Your task to perform on an android device: allow notifications from all sites in the chrome app Image 0: 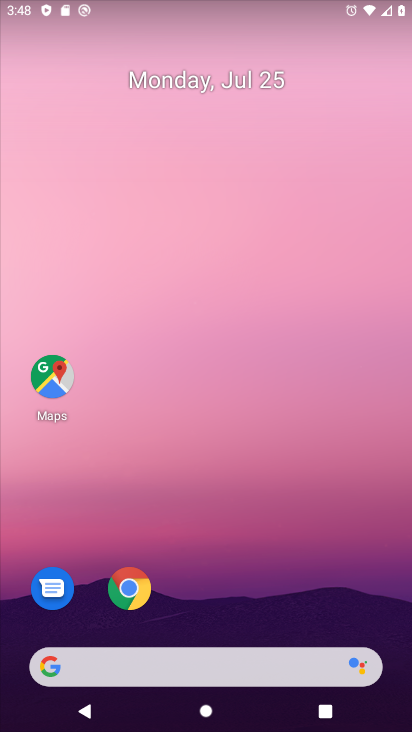
Step 0: drag from (235, 724) to (234, 57)
Your task to perform on an android device: allow notifications from all sites in the chrome app Image 1: 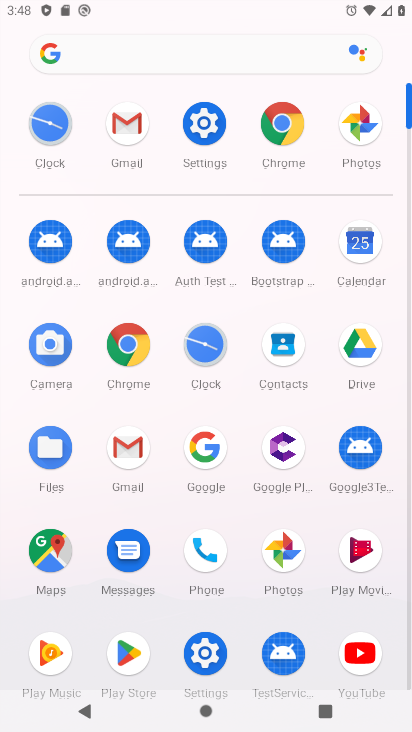
Step 1: click (129, 340)
Your task to perform on an android device: allow notifications from all sites in the chrome app Image 2: 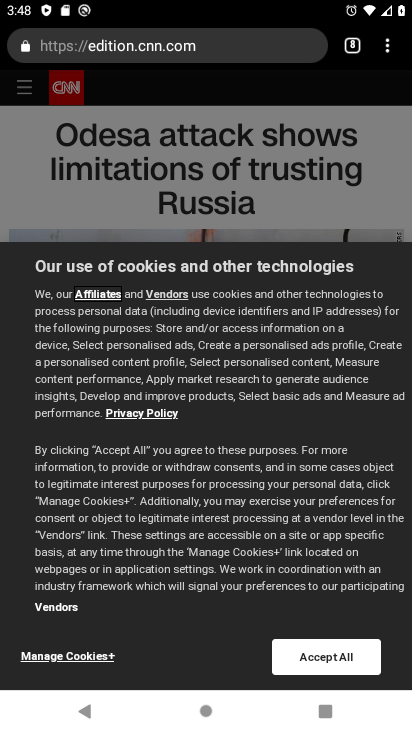
Step 2: click (387, 56)
Your task to perform on an android device: allow notifications from all sites in the chrome app Image 3: 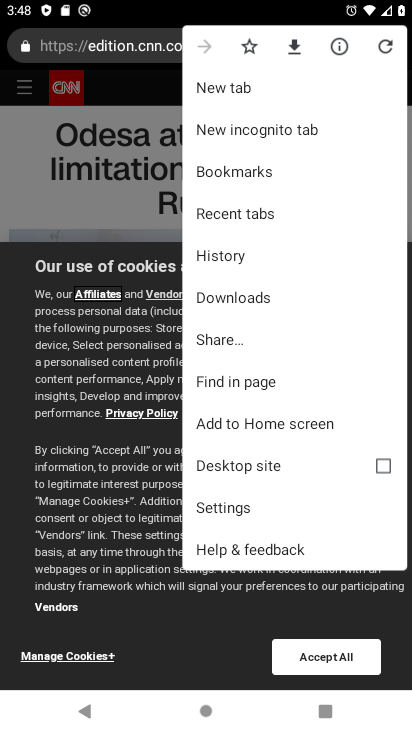
Step 3: click (220, 506)
Your task to perform on an android device: allow notifications from all sites in the chrome app Image 4: 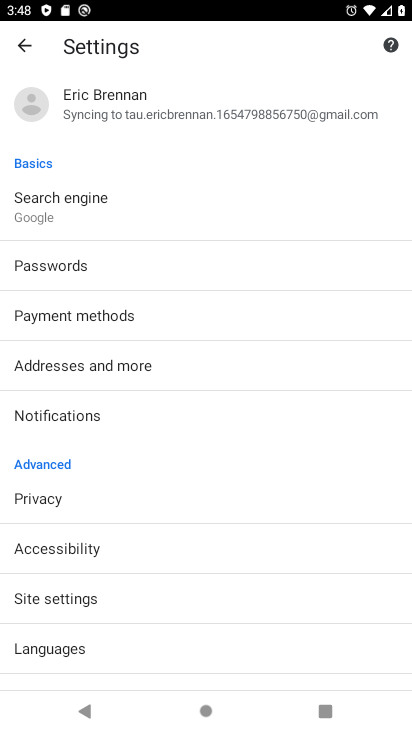
Step 4: click (59, 599)
Your task to perform on an android device: allow notifications from all sites in the chrome app Image 5: 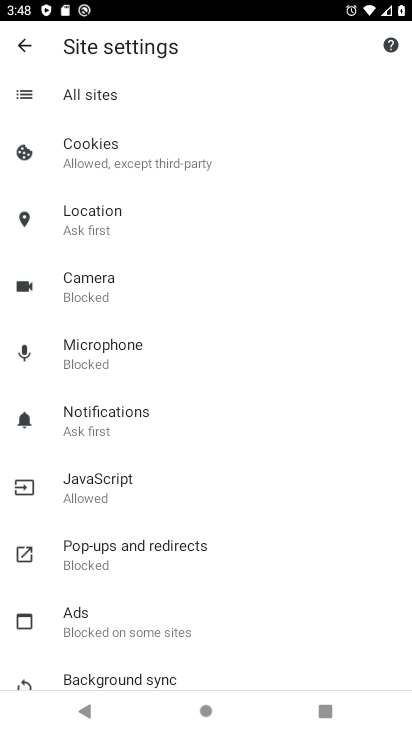
Step 5: click (96, 415)
Your task to perform on an android device: allow notifications from all sites in the chrome app Image 6: 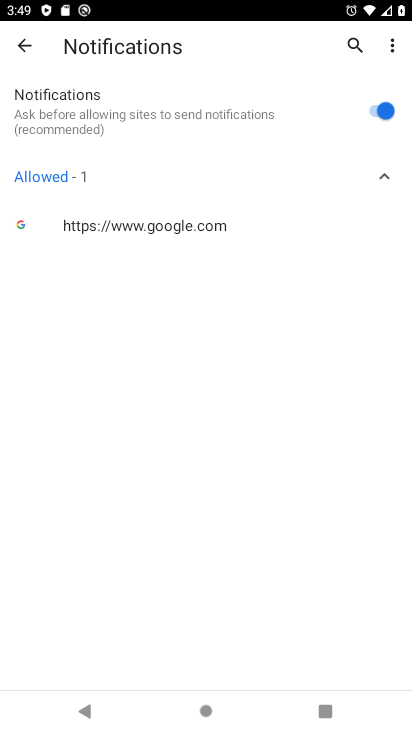
Step 6: task complete